Your task to perform on an android device: uninstall "Cash App" Image 0: 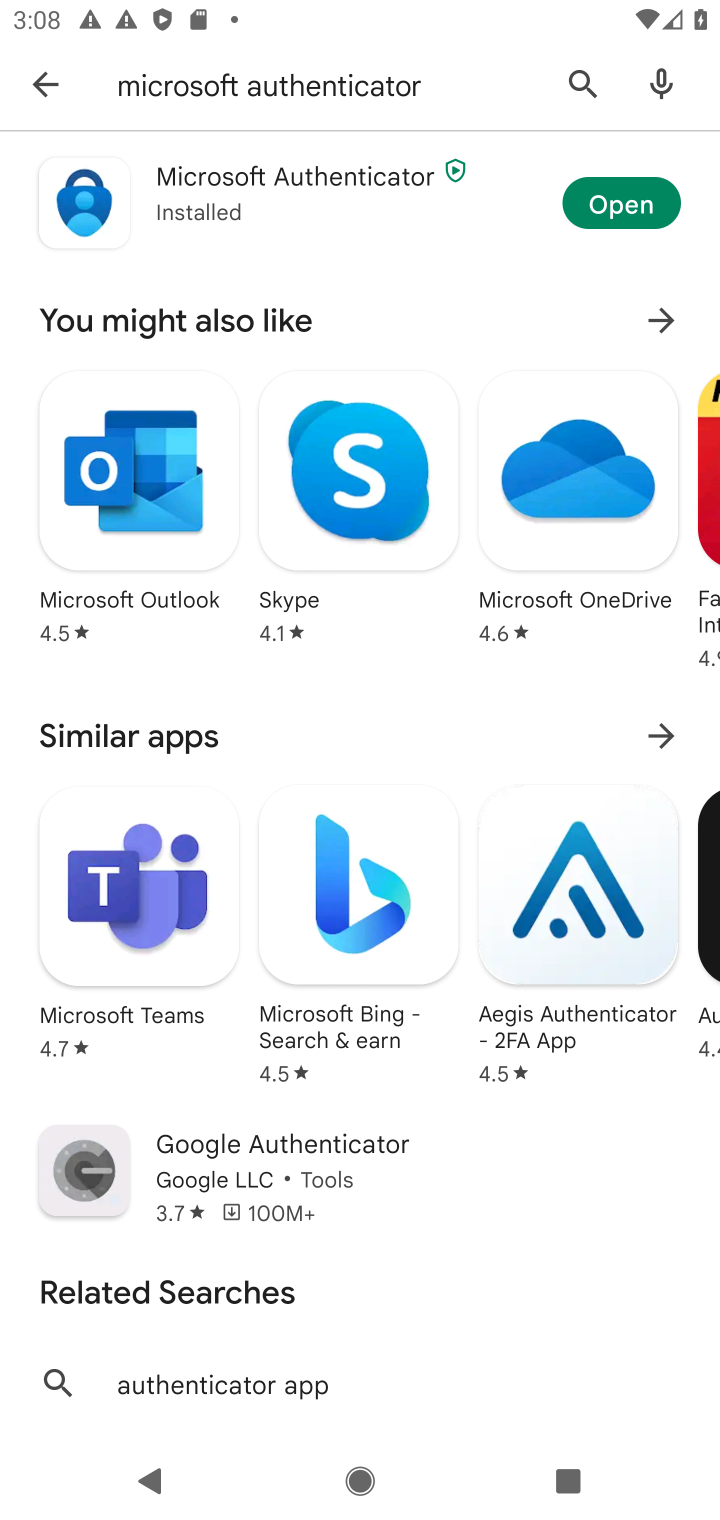
Step 0: press home button
Your task to perform on an android device: uninstall "Cash App" Image 1: 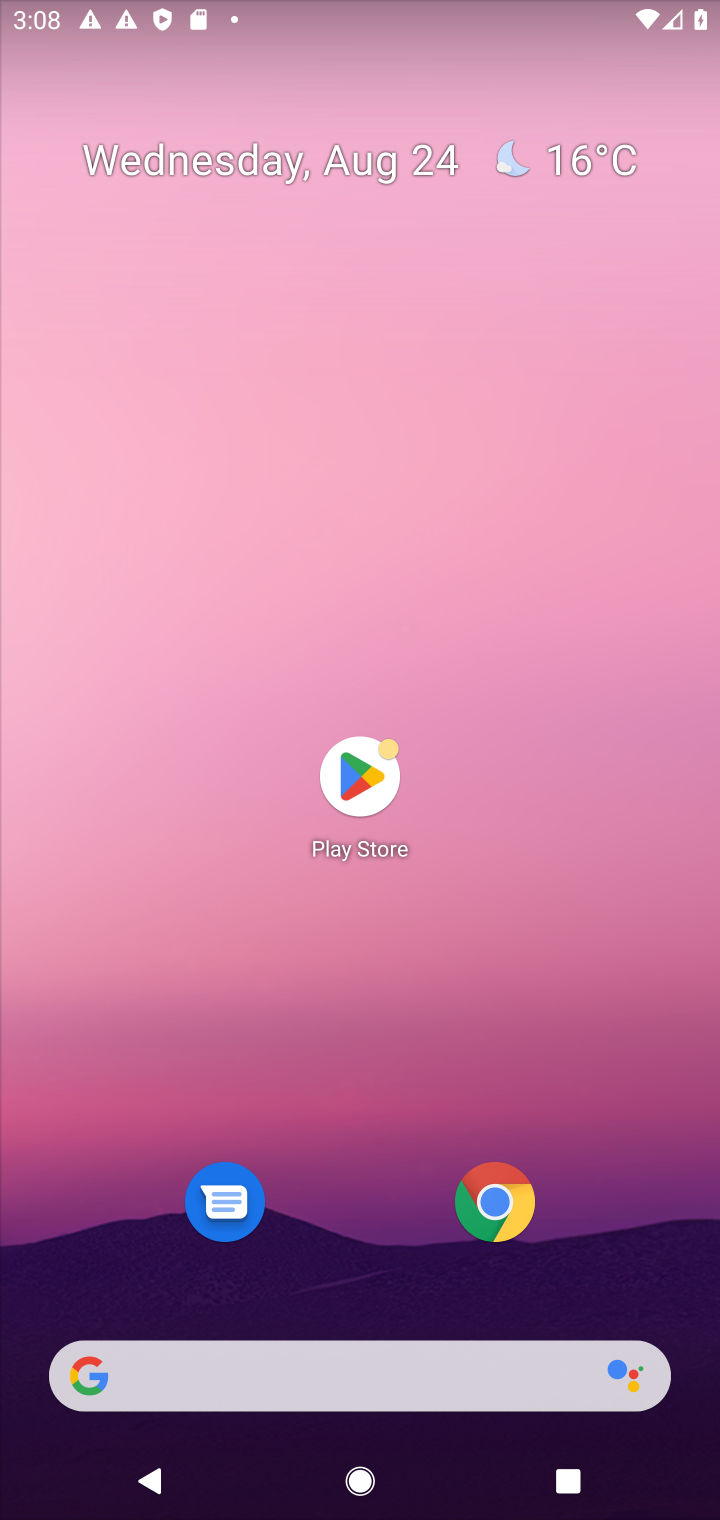
Step 1: click (361, 769)
Your task to perform on an android device: uninstall "Cash App" Image 2: 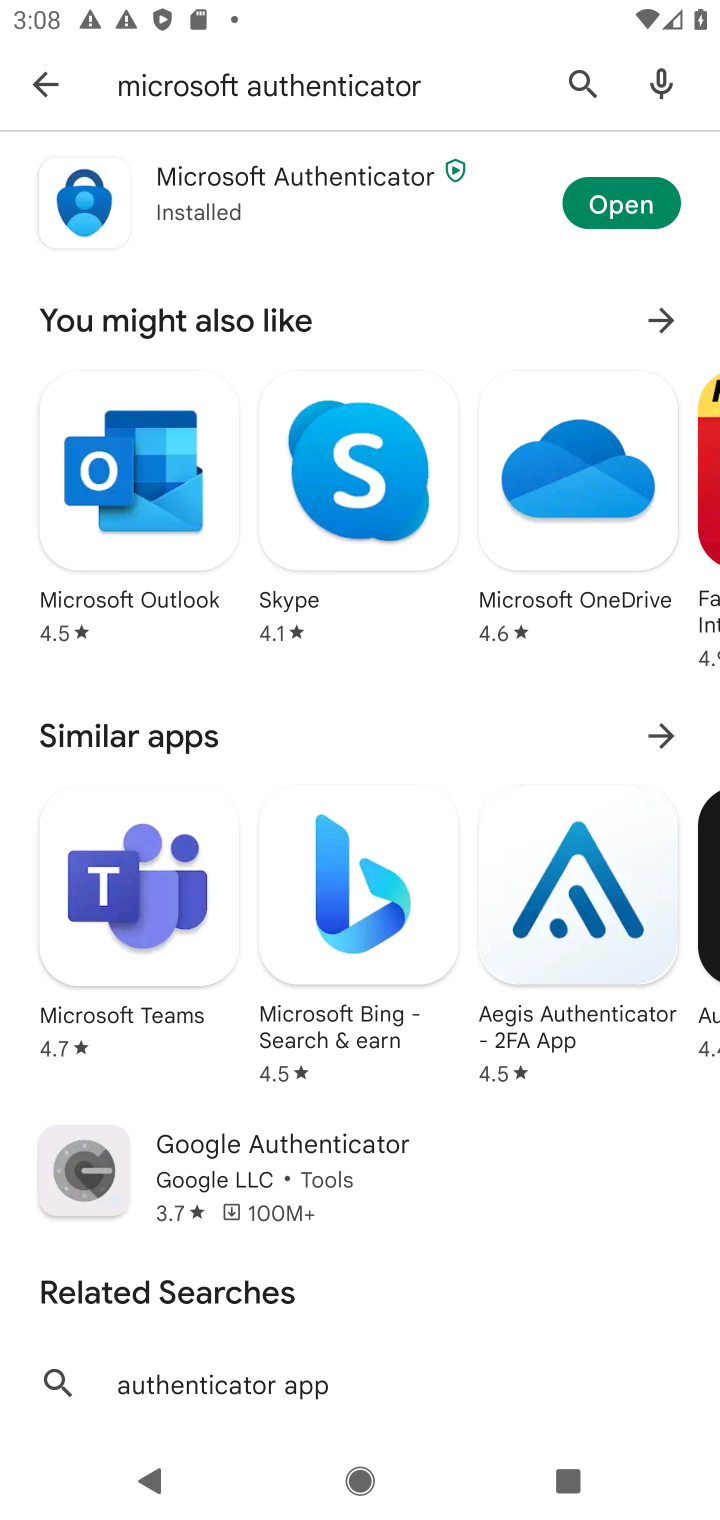
Step 2: click (579, 81)
Your task to perform on an android device: uninstall "Cash App" Image 3: 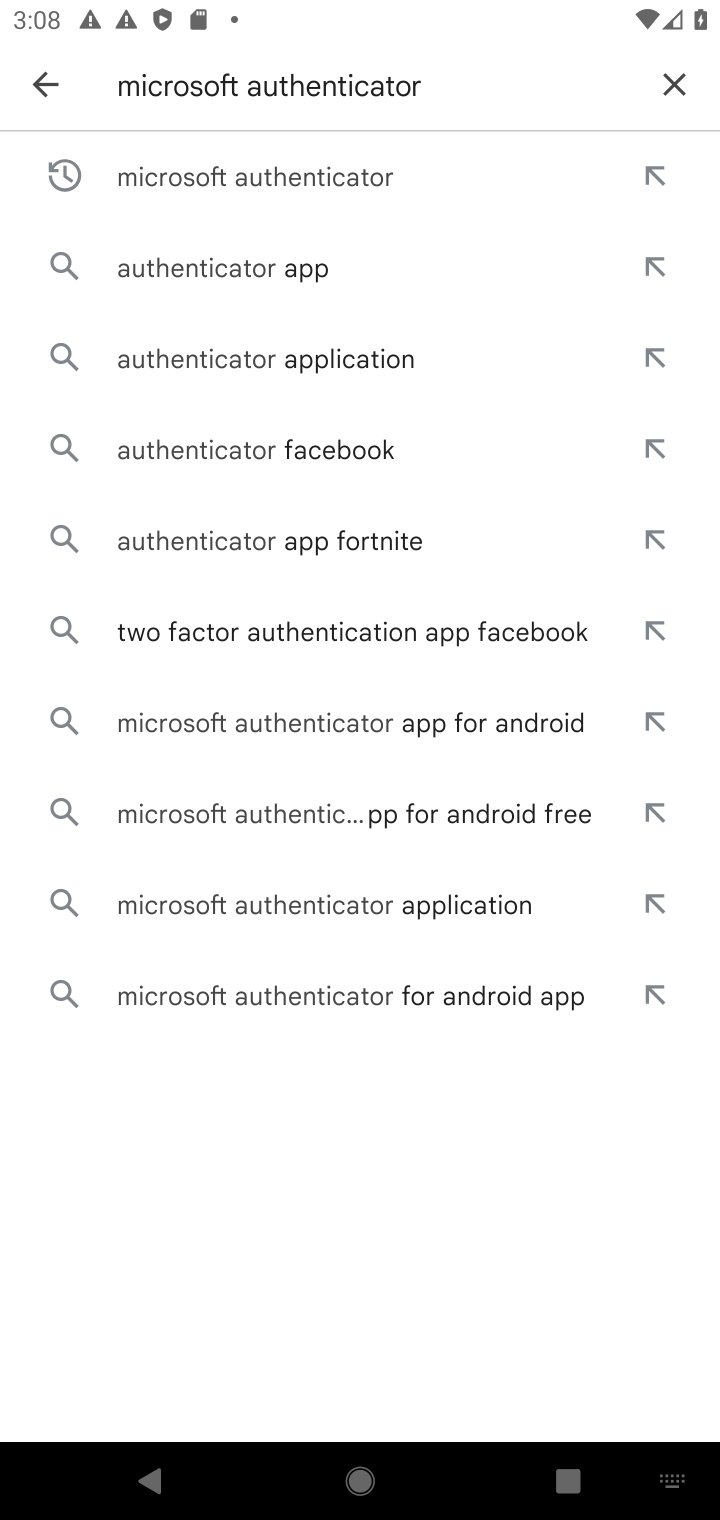
Step 3: click (673, 74)
Your task to perform on an android device: uninstall "Cash App" Image 4: 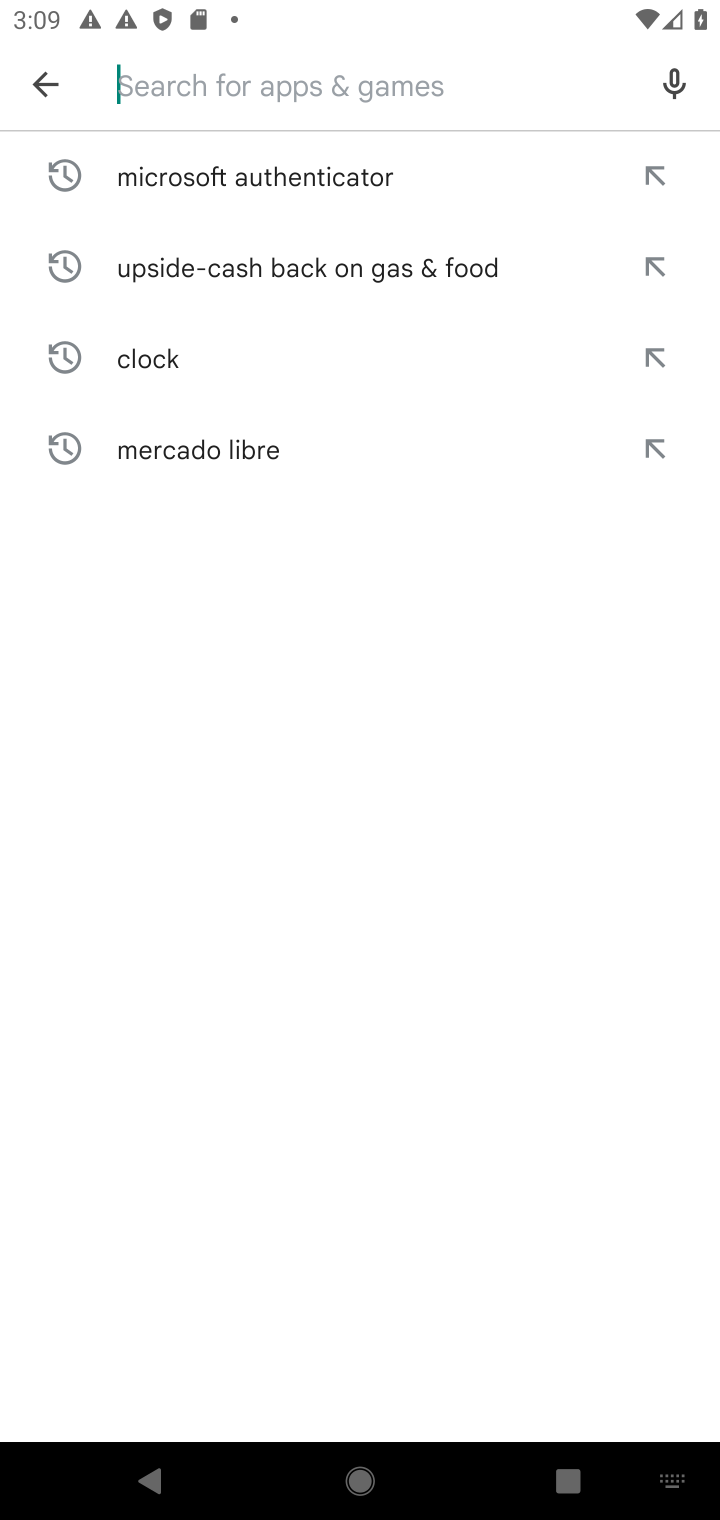
Step 4: type "Cash App"
Your task to perform on an android device: uninstall "Cash App" Image 5: 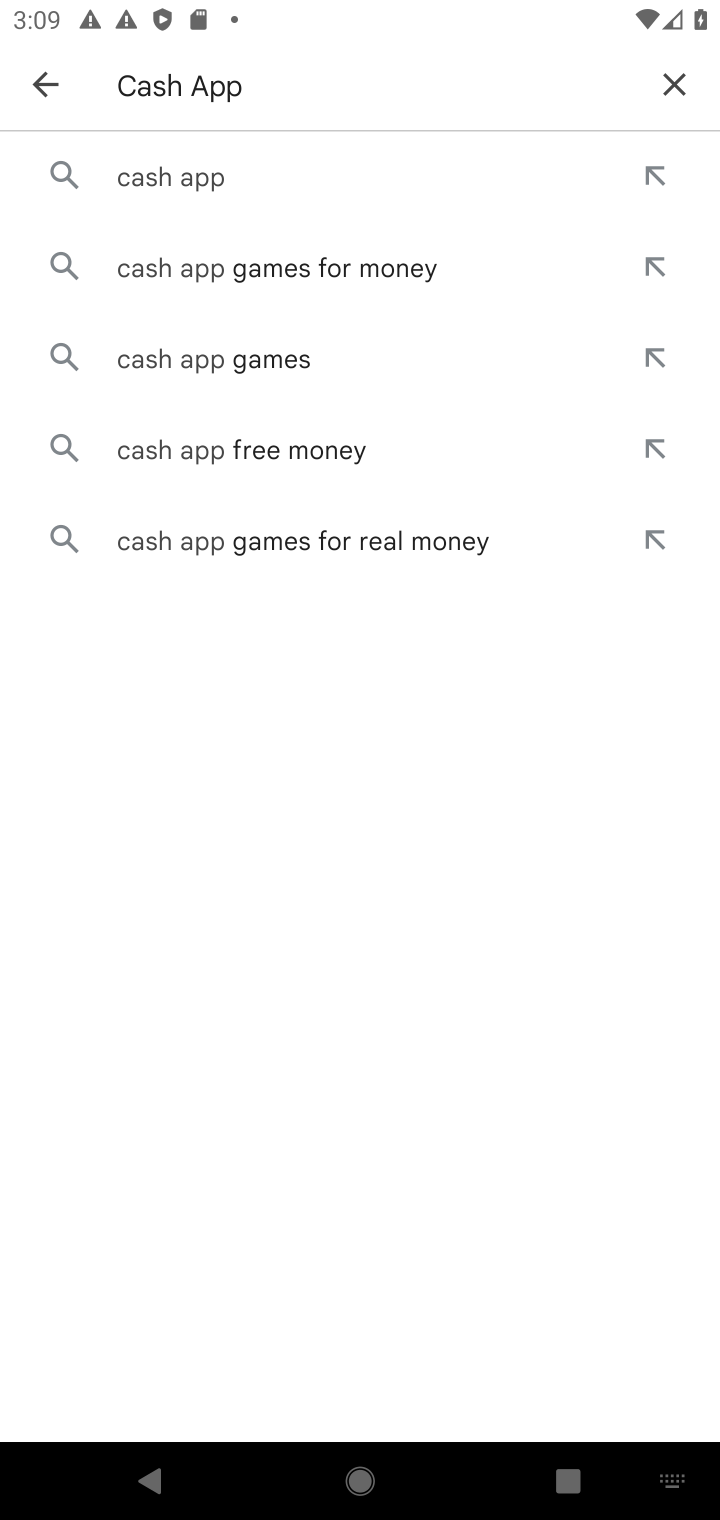
Step 5: click (195, 177)
Your task to perform on an android device: uninstall "Cash App" Image 6: 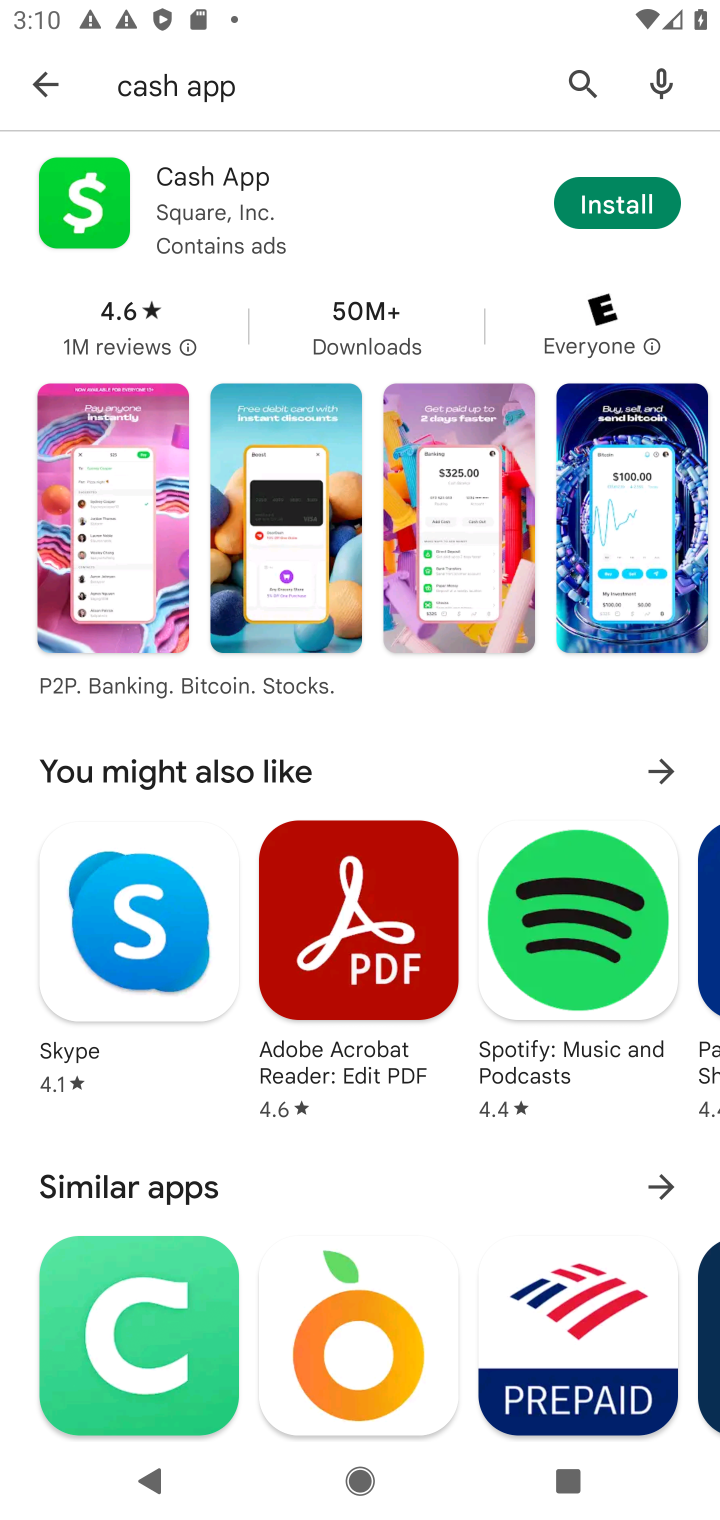
Step 6: task complete